Your task to perform on an android device: turn pop-ups on in chrome Image 0: 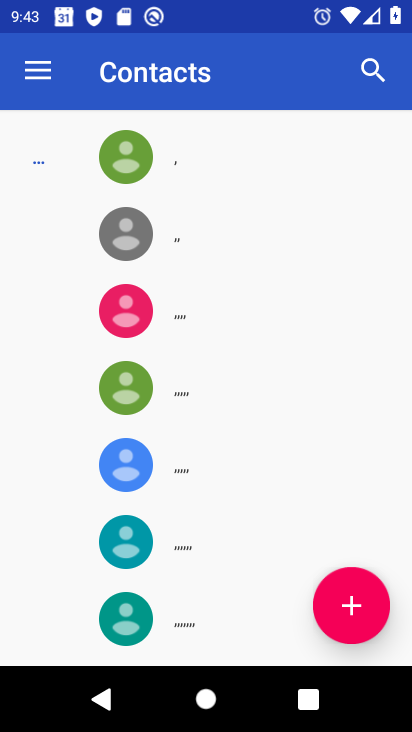
Step 0: press home button
Your task to perform on an android device: turn pop-ups on in chrome Image 1: 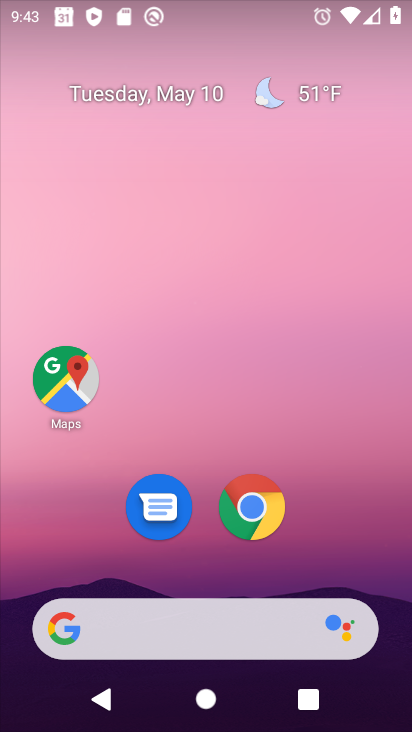
Step 1: click (251, 516)
Your task to perform on an android device: turn pop-ups on in chrome Image 2: 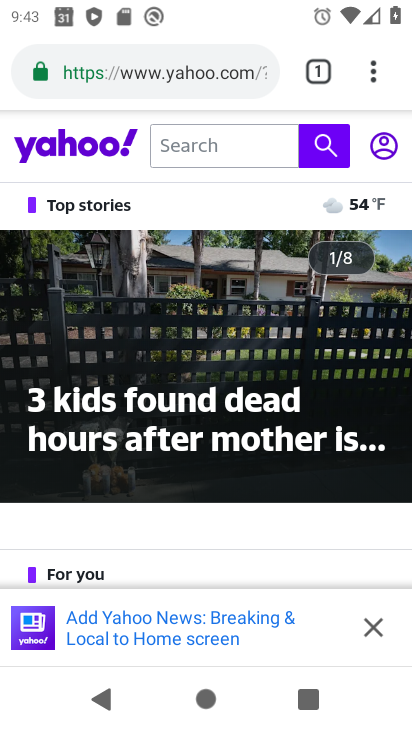
Step 2: click (364, 63)
Your task to perform on an android device: turn pop-ups on in chrome Image 3: 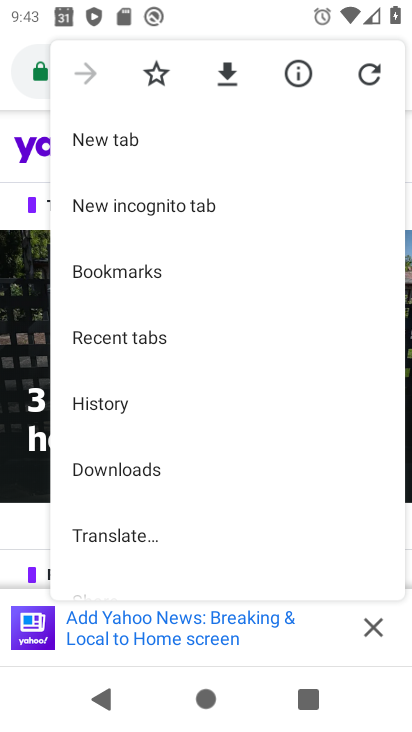
Step 3: drag from (128, 528) to (211, 103)
Your task to perform on an android device: turn pop-ups on in chrome Image 4: 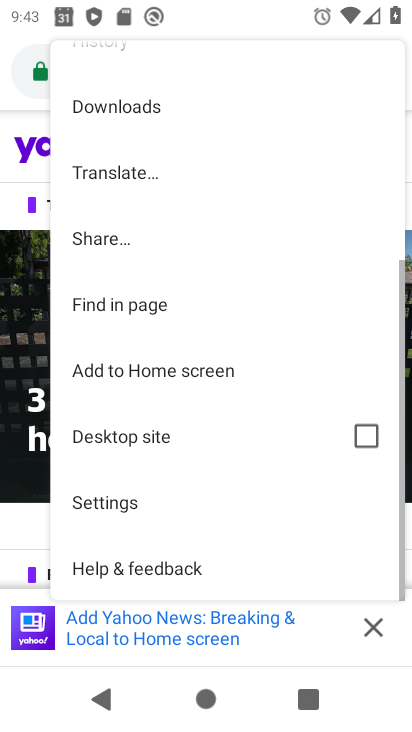
Step 4: click (114, 529)
Your task to perform on an android device: turn pop-ups on in chrome Image 5: 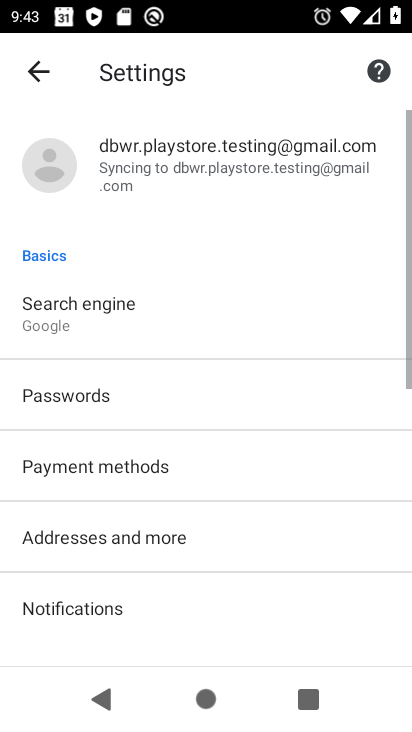
Step 5: drag from (114, 529) to (150, 169)
Your task to perform on an android device: turn pop-ups on in chrome Image 6: 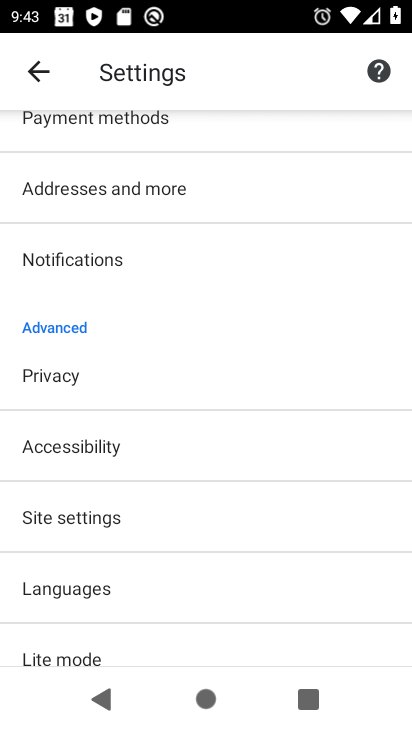
Step 6: drag from (99, 577) to (180, 136)
Your task to perform on an android device: turn pop-ups on in chrome Image 7: 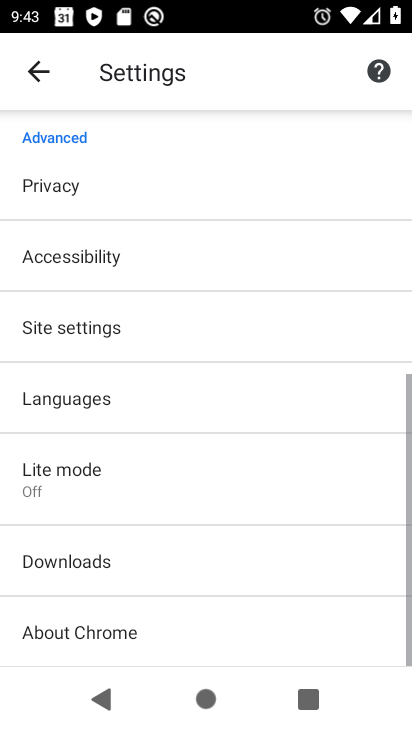
Step 7: drag from (29, 552) to (72, 226)
Your task to perform on an android device: turn pop-ups on in chrome Image 8: 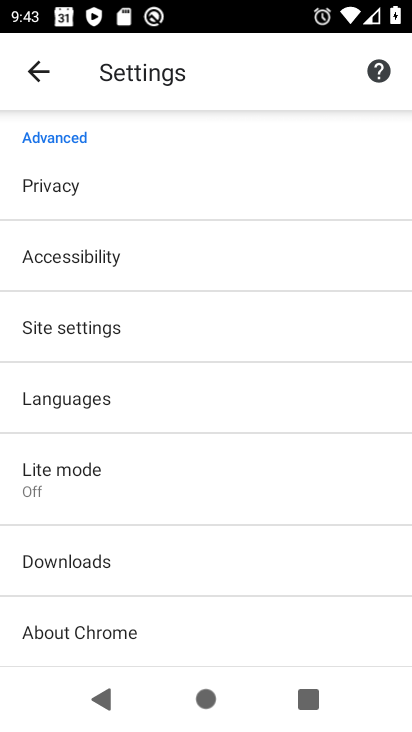
Step 8: click (177, 337)
Your task to perform on an android device: turn pop-ups on in chrome Image 9: 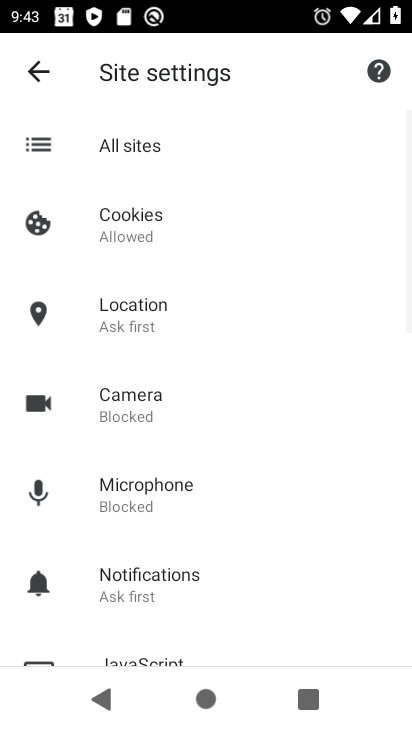
Step 9: drag from (124, 616) to (193, 97)
Your task to perform on an android device: turn pop-ups on in chrome Image 10: 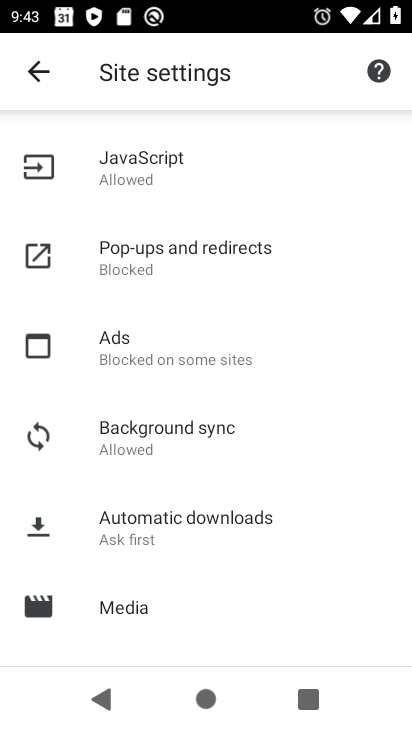
Step 10: click (214, 267)
Your task to perform on an android device: turn pop-ups on in chrome Image 11: 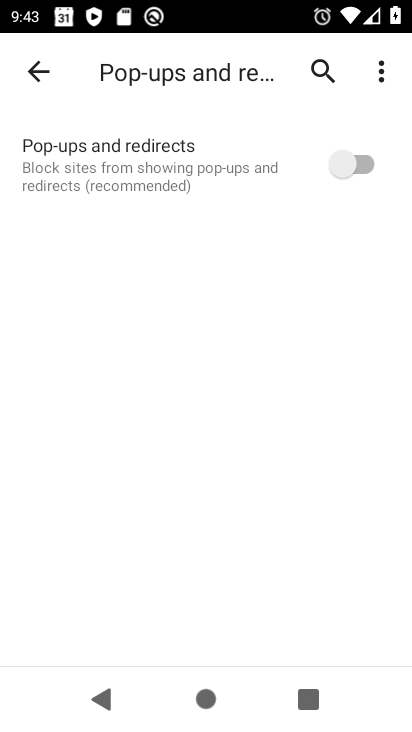
Step 11: click (376, 156)
Your task to perform on an android device: turn pop-ups on in chrome Image 12: 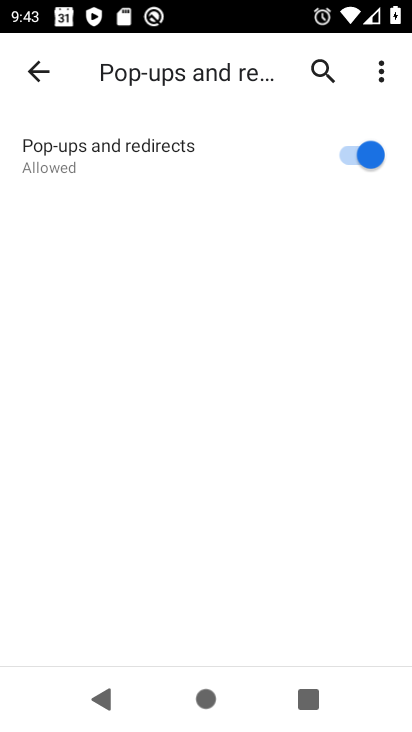
Step 12: task complete